Your task to perform on an android device: turn on priority inbox in the gmail app Image 0: 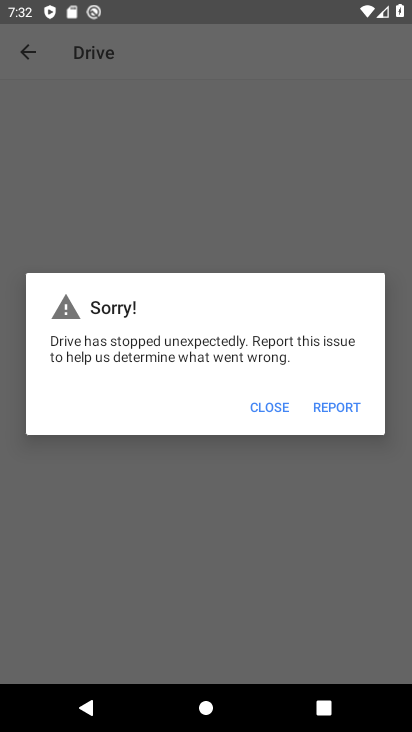
Step 0: press home button
Your task to perform on an android device: turn on priority inbox in the gmail app Image 1: 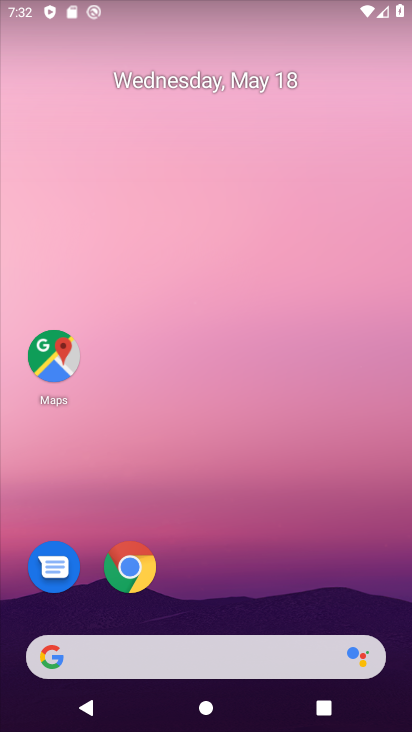
Step 1: drag from (269, 610) to (313, 49)
Your task to perform on an android device: turn on priority inbox in the gmail app Image 2: 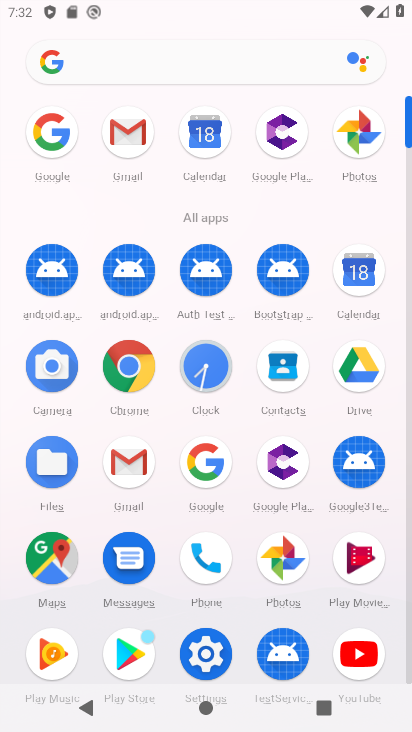
Step 2: click (125, 455)
Your task to perform on an android device: turn on priority inbox in the gmail app Image 3: 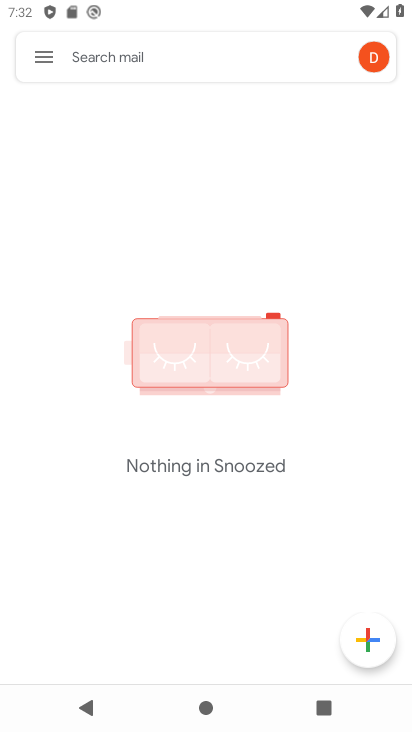
Step 3: click (38, 65)
Your task to perform on an android device: turn on priority inbox in the gmail app Image 4: 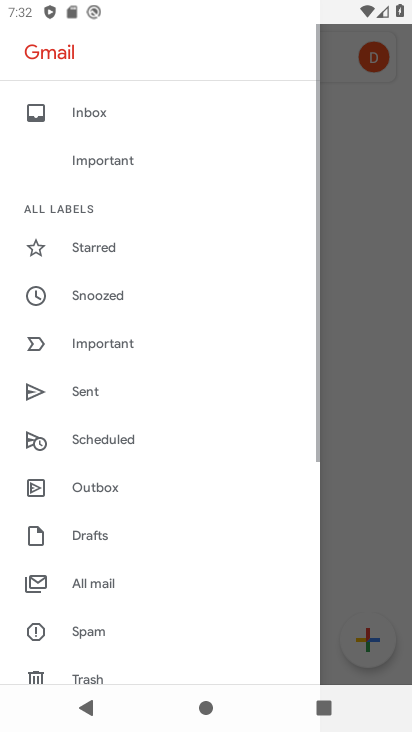
Step 4: drag from (203, 537) to (266, 131)
Your task to perform on an android device: turn on priority inbox in the gmail app Image 5: 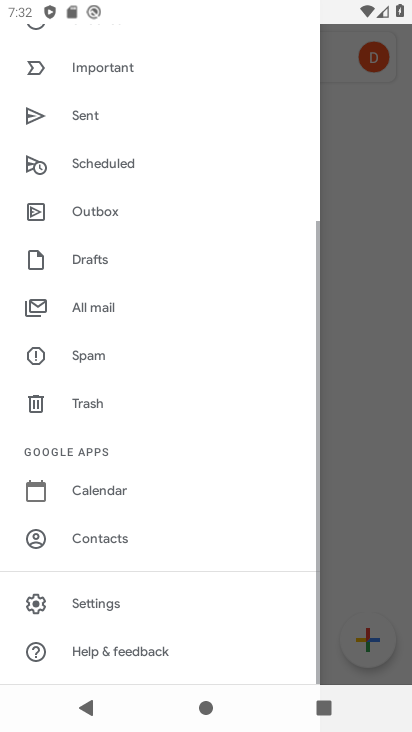
Step 5: click (103, 598)
Your task to perform on an android device: turn on priority inbox in the gmail app Image 6: 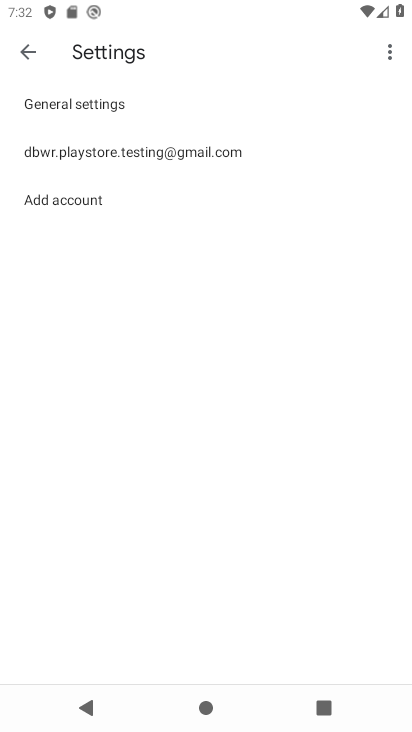
Step 6: click (142, 150)
Your task to perform on an android device: turn on priority inbox in the gmail app Image 7: 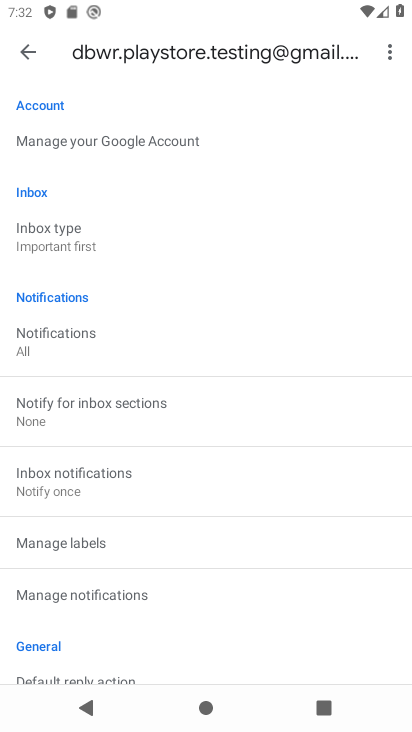
Step 7: drag from (211, 189) to (159, 563)
Your task to perform on an android device: turn on priority inbox in the gmail app Image 8: 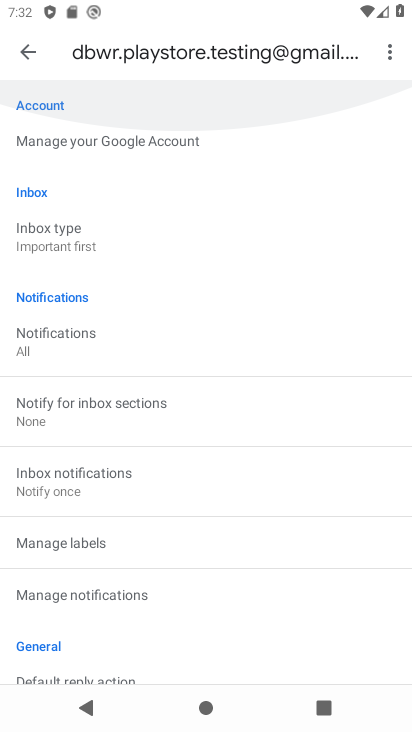
Step 8: click (156, 569)
Your task to perform on an android device: turn on priority inbox in the gmail app Image 9: 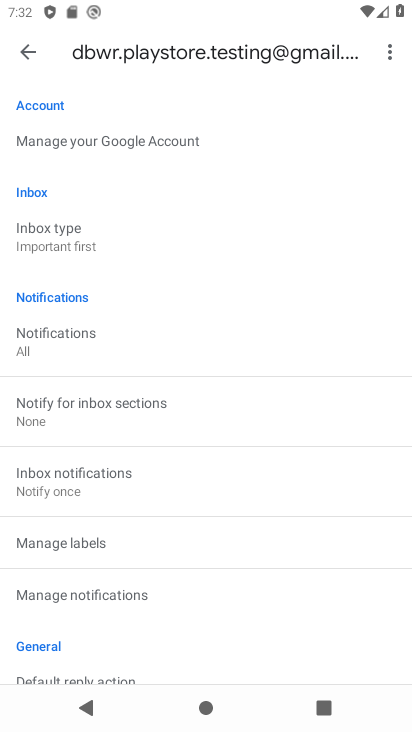
Step 9: click (122, 235)
Your task to perform on an android device: turn on priority inbox in the gmail app Image 10: 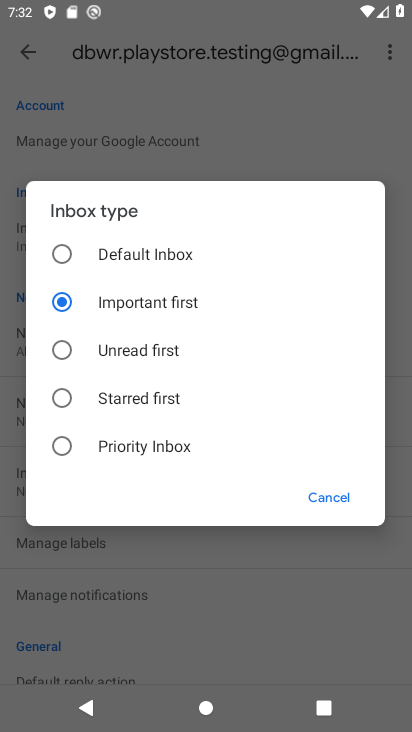
Step 10: click (153, 463)
Your task to perform on an android device: turn on priority inbox in the gmail app Image 11: 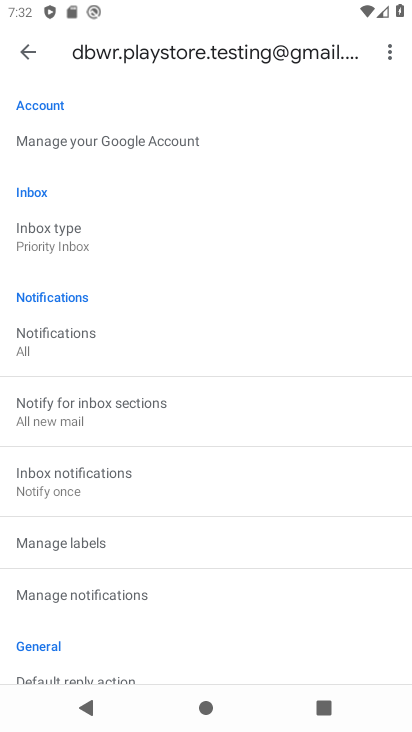
Step 11: task complete